Your task to perform on an android device: empty trash in the gmail app Image 0: 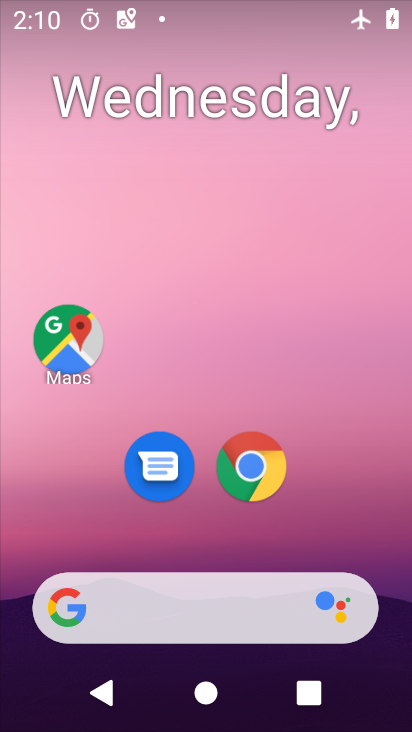
Step 0: drag from (301, 445) to (344, 122)
Your task to perform on an android device: empty trash in the gmail app Image 1: 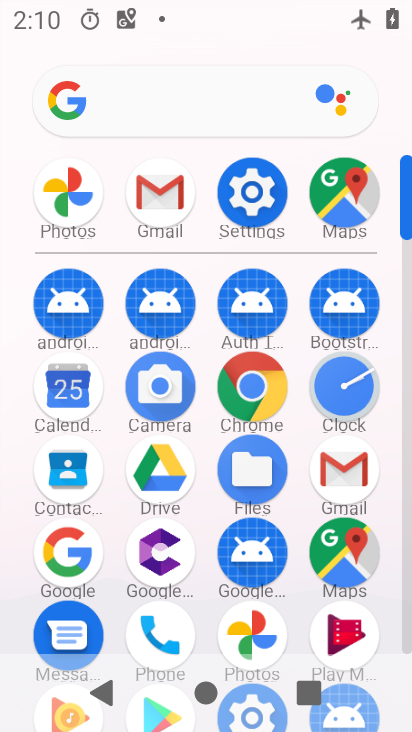
Step 1: click (149, 184)
Your task to perform on an android device: empty trash in the gmail app Image 2: 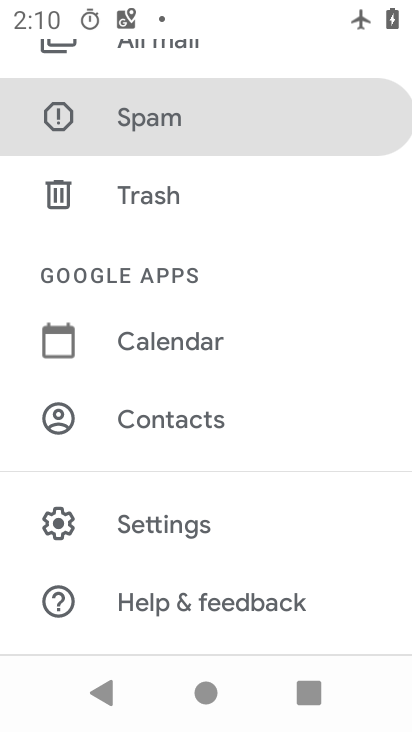
Step 2: click (136, 195)
Your task to perform on an android device: empty trash in the gmail app Image 3: 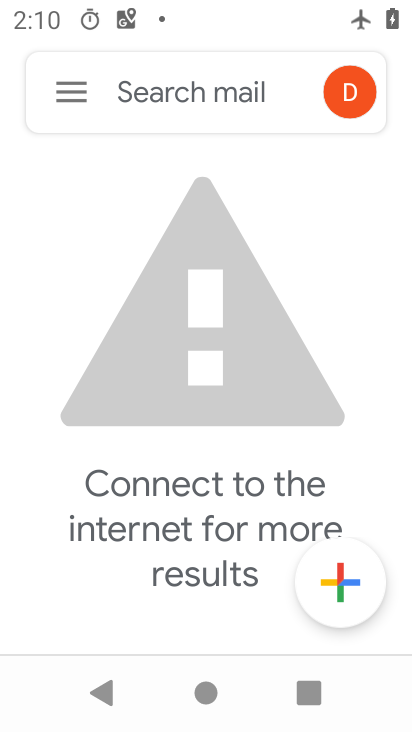
Step 3: task complete